Your task to perform on an android device: Check the news Image 0: 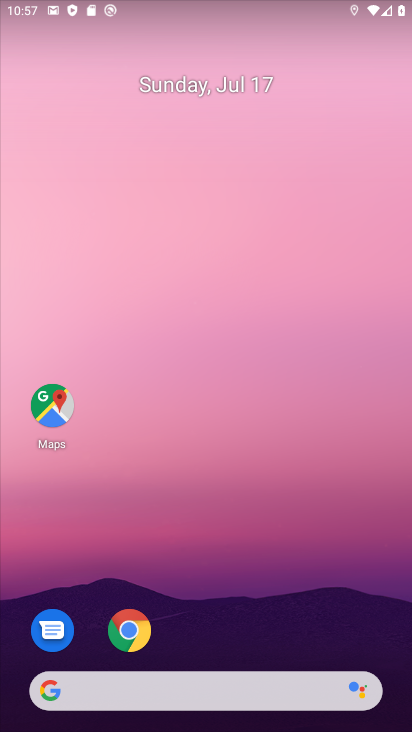
Step 0: drag from (16, 260) to (348, 236)
Your task to perform on an android device: Check the news Image 1: 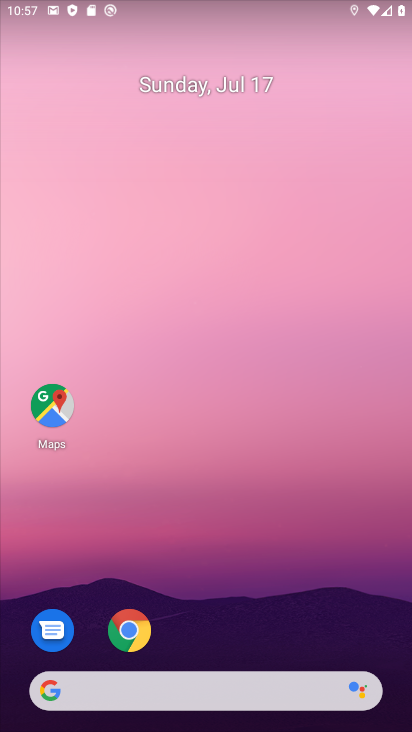
Step 1: task complete